Your task to perform on an android device: Open ESPN.com Image 0: 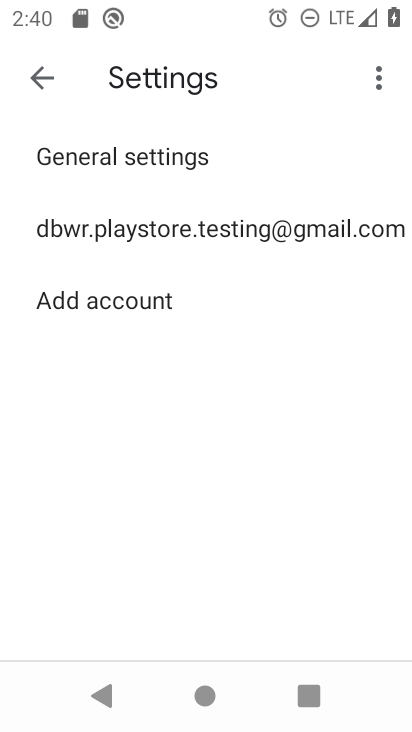
Step 0: press home button
Your task to perform on an android device: Open ESPN.com Image 1: 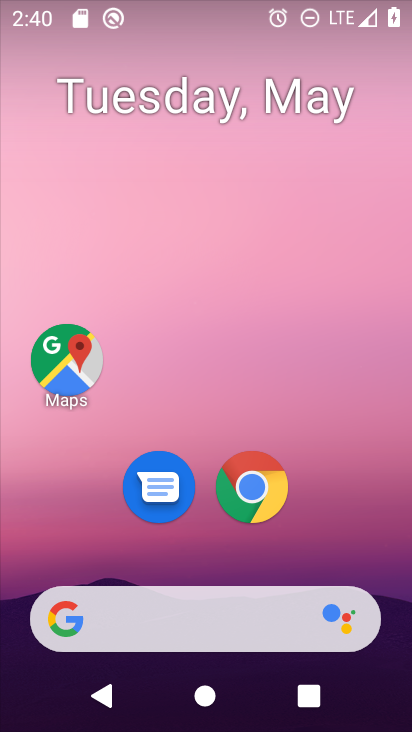
Step 1: click (259, 488)
Your task to perform on an android device: Open ESPN.com Image 2: 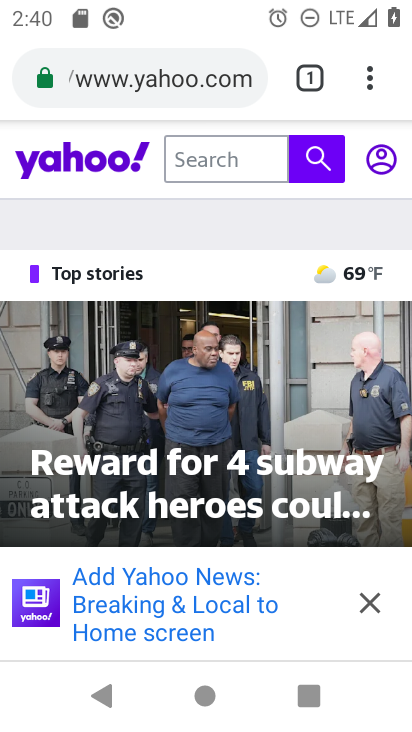
Step 2: click (311, 75)
Your task to perform on an android device: Open ESPN.com Image 3: 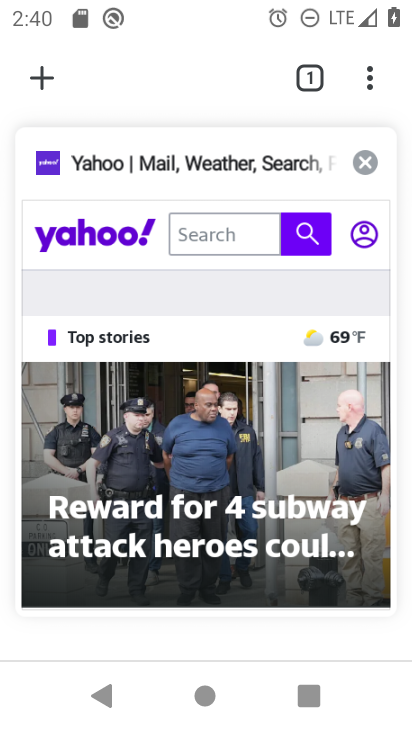
Step 3: click (367, 161)
Your task to perform on an android device: Open ESPN.com Image 4: 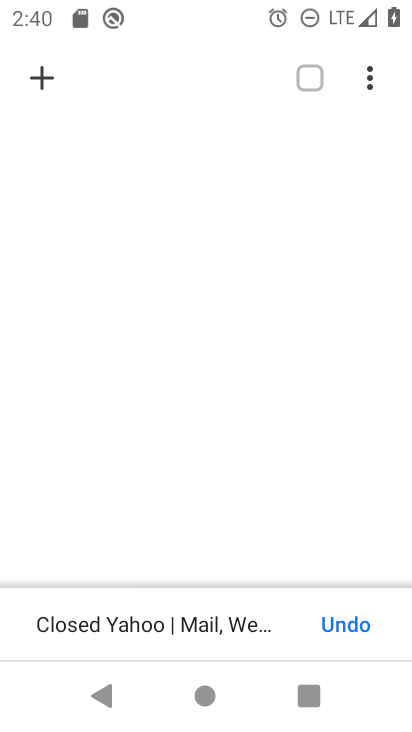
Step 4: click (36, 77)
Your task to perform on an android device: Open ESPN.com Image 5: 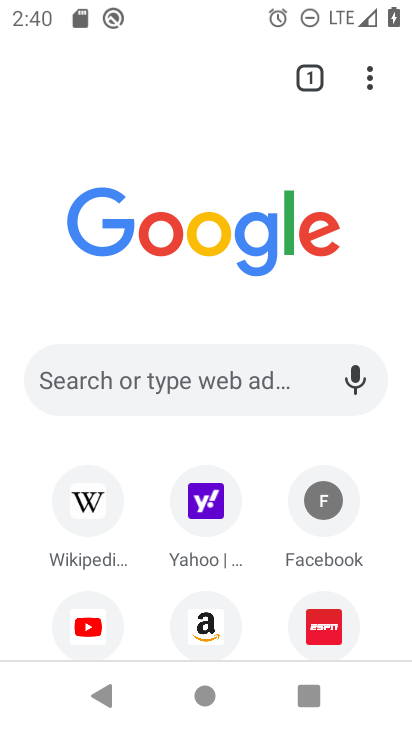
Step 5: drag from (131, 620) to (236, 235)
Your task to perform on an android device: Open ESPN.com Image 6: 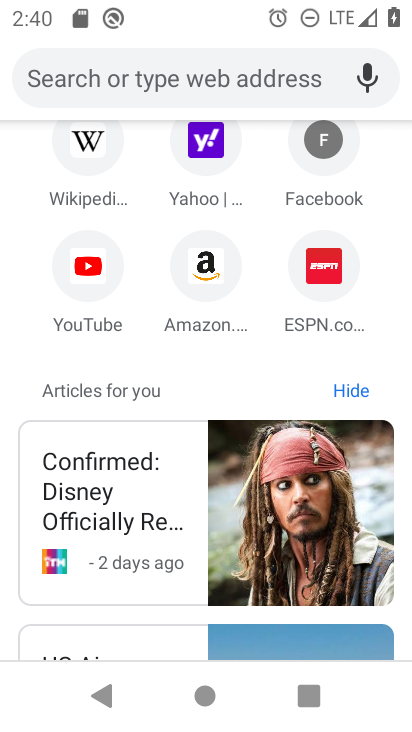
Step 6: click (316, 294)
Your task to perform on an android device: Open ESPN.com Image 7: 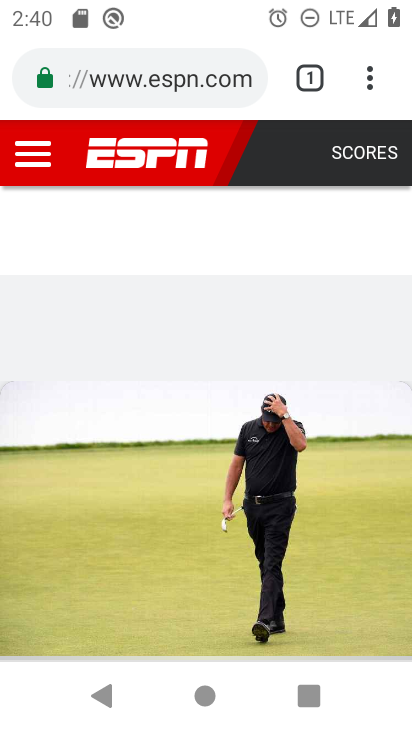
Step 7: task complete